Your task to perform on an android device: turn on showing notifications on the lock screen Image 0: 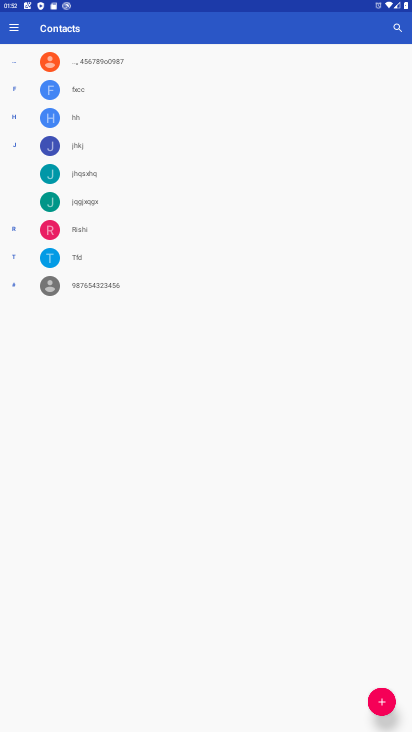
Step 0: press home button
Your task to perform on an android device: turn on showing notifications on the lock screen Image 1: 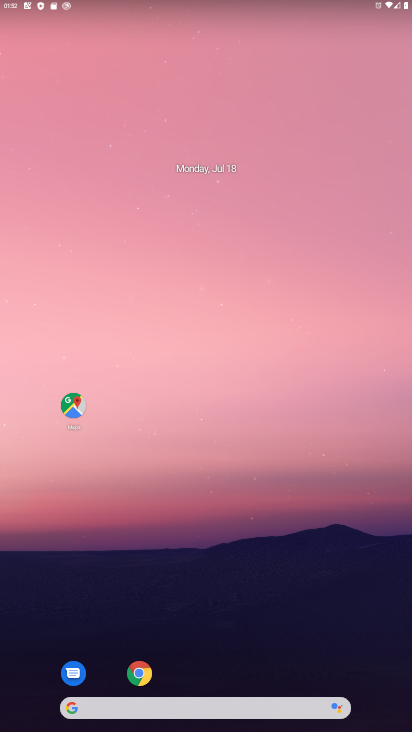
Step 1: drag from (205, 688) to (196, 60)
Your task to perform on an android device: turn on showing notifications on the lock screen Image 2: 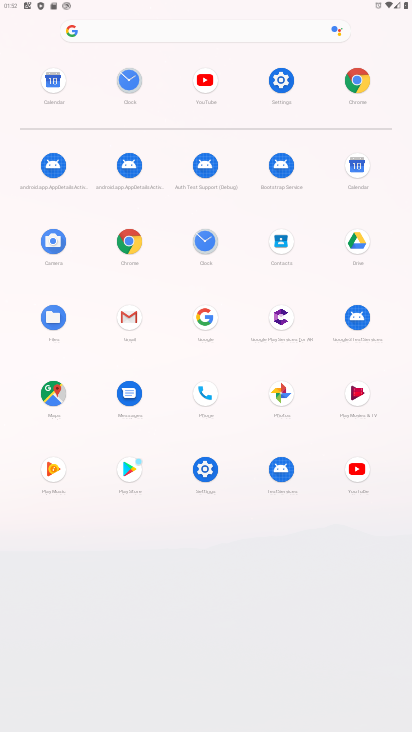
Step 2: click (268, 83)
Your task to perform on an android device: turn on showing notifications on the lock screen Image 3: 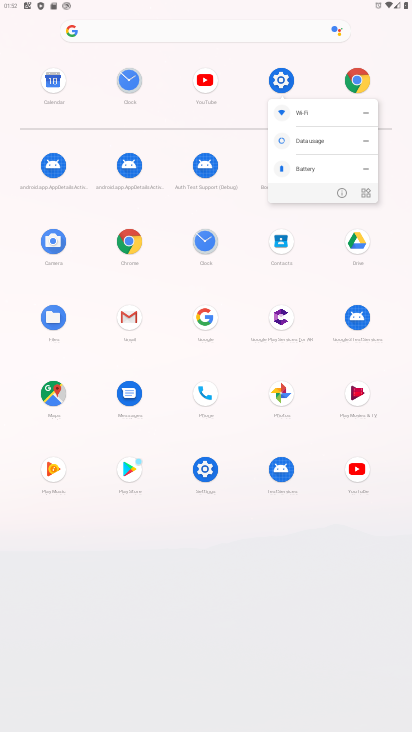
Step 3: click (271, 81)
Your task to perform on an android device: turn on showing notifications on the lock screen Image 4: 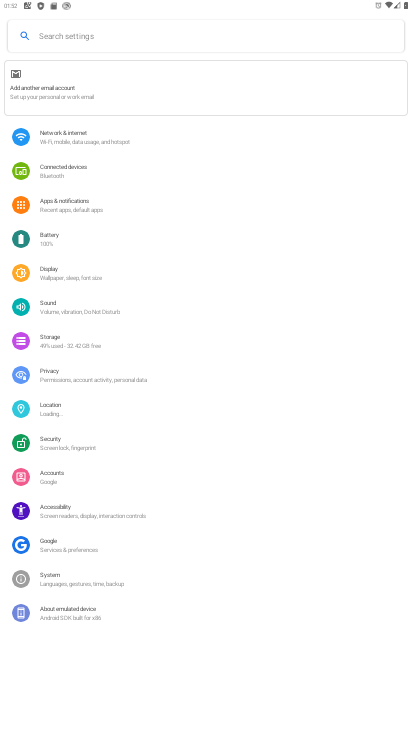
Step 4: click (100, 216)
Your task to perform on an android device: turn on showing notifications on the lock screen Image 5: 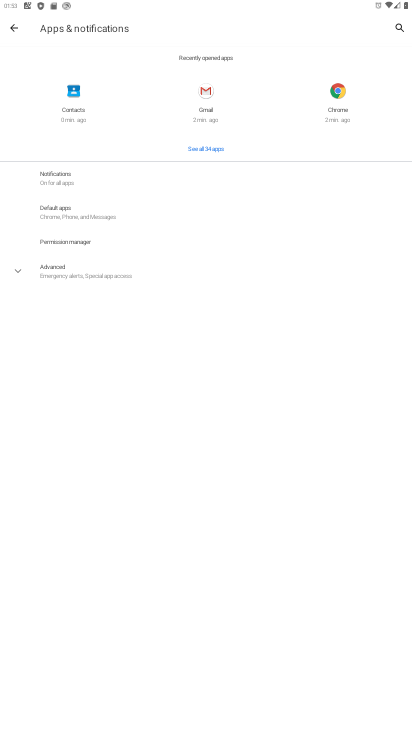
Step 5: click (110, 177)
Your task to perform on an android device: turn on showing notifications on the lock screen Image 6: 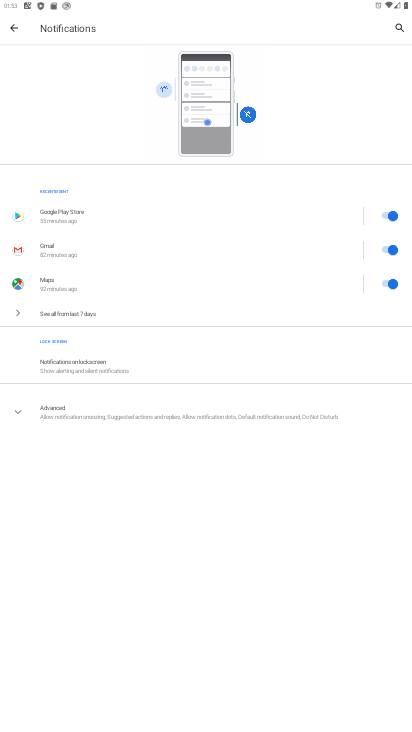
Step 6: click (103, 358)
Your task to perform on an android device: turn on showing notifications on the lock screen Image 7: 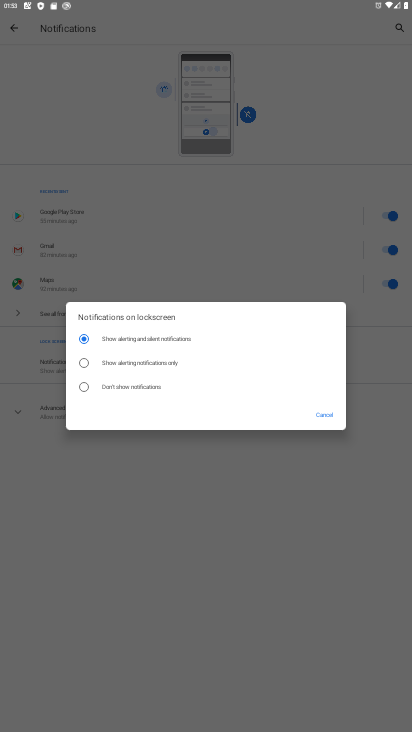
Step 7: task complete